Your task to perform on an android device: Open Chrome and go to settings Image 0: 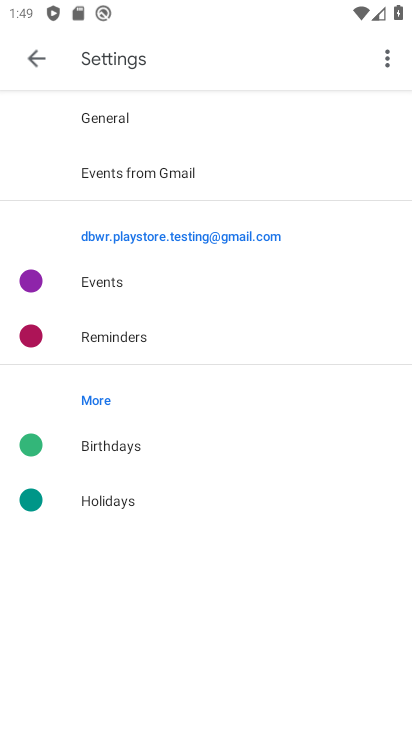
Step 0: press home button
Your task to perform on an android device: Open Chrome and go to settings Image 1: 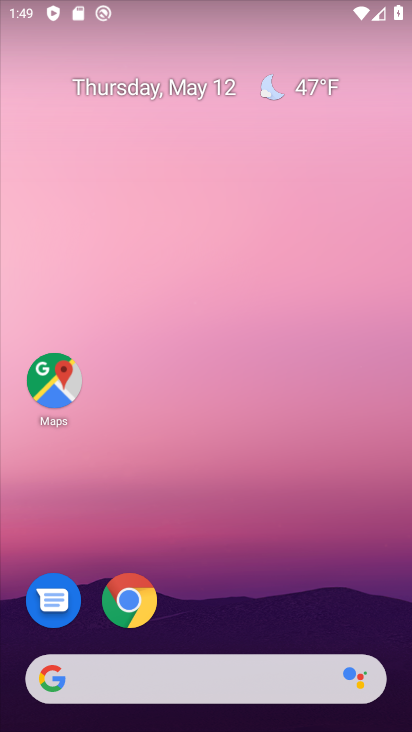
Step 1: click (137, 608)
Your task to perform on an android device: Open Chrome and go to settings Image 2: 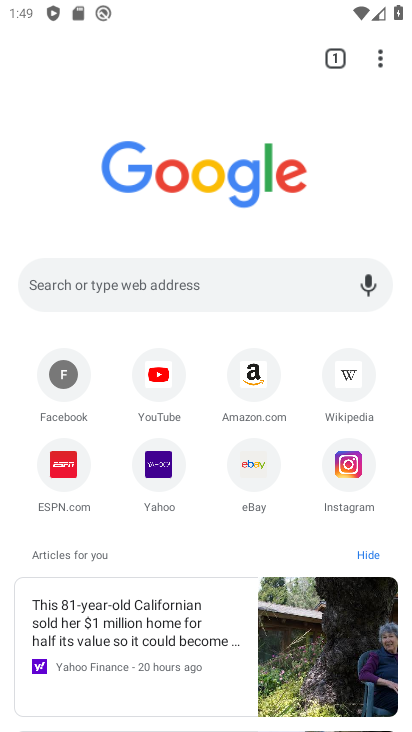
Step 2: click (376, 53)
Your task to perform on an android device: Open Chrome and go to settings Image 3: 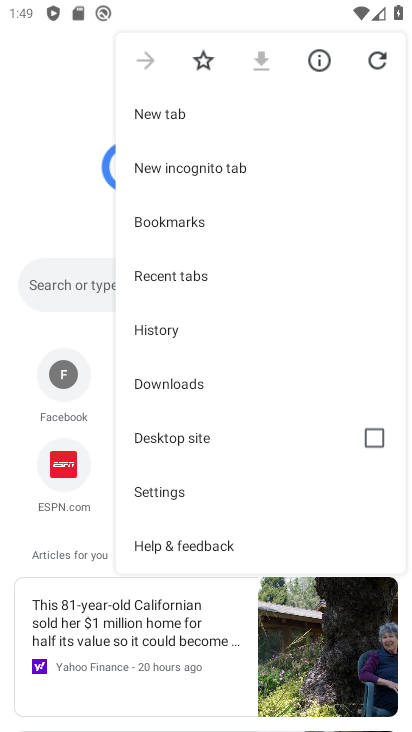
Step 3: click (183, 487)
Your task to perform on an android device: Open Chrome and go to settings Image 4: 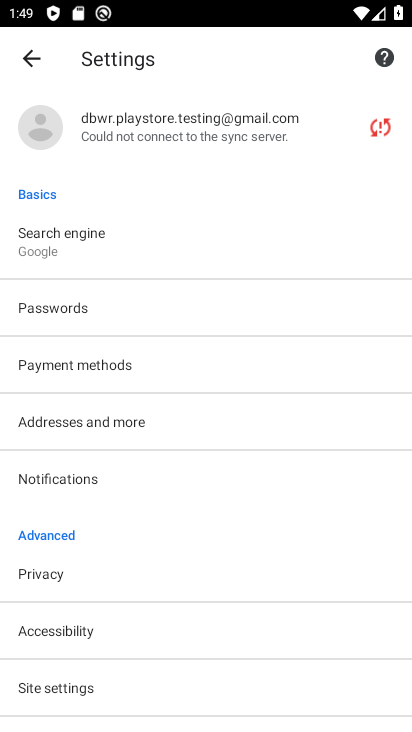
Step 4: task complete